Your task to perform on an android device: empty trash in google photos Image 0: 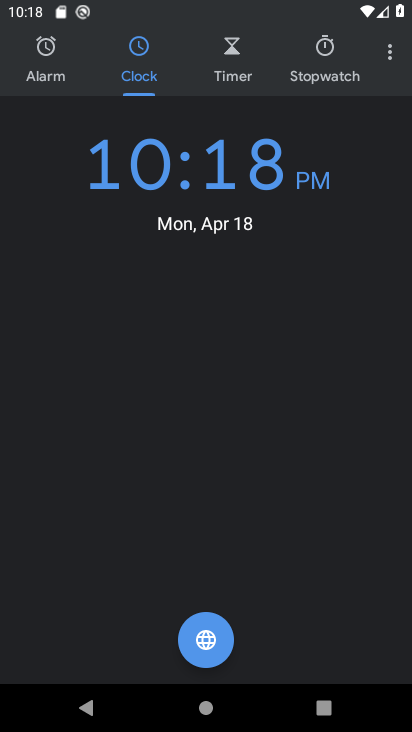
Step 0: press home button
Your task to perform on an android device: empty trash in google photos Image 1: 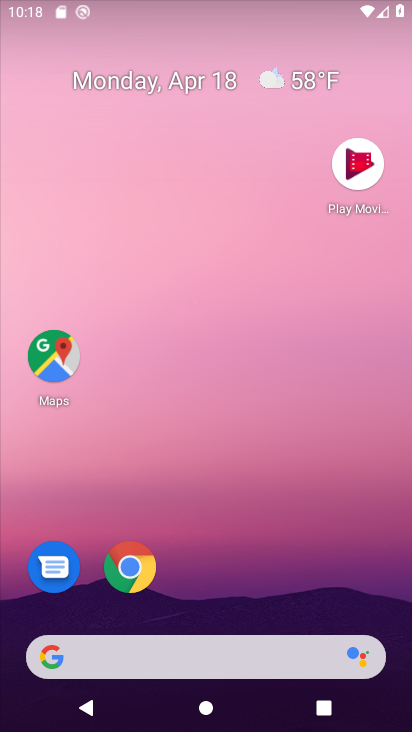
Step 1: drag from (198, 603) to (222, 374)
Your task to perform on an android device: empty trash in google photos Image 2: 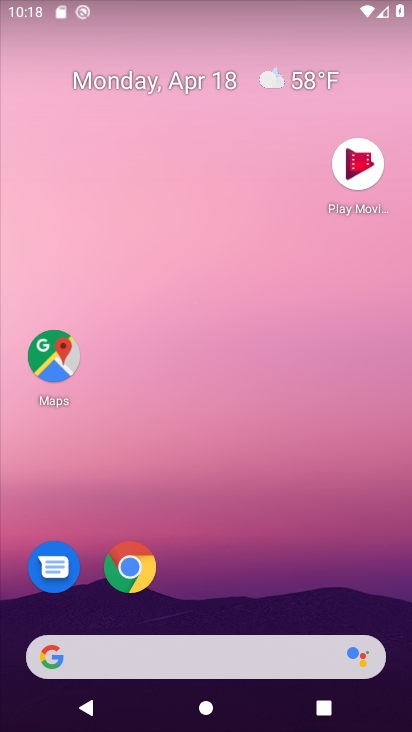
Step 2: drag from (195, 584) to (118, 0)
Your task to perform on an android device: empty trash in google photos Image 3: 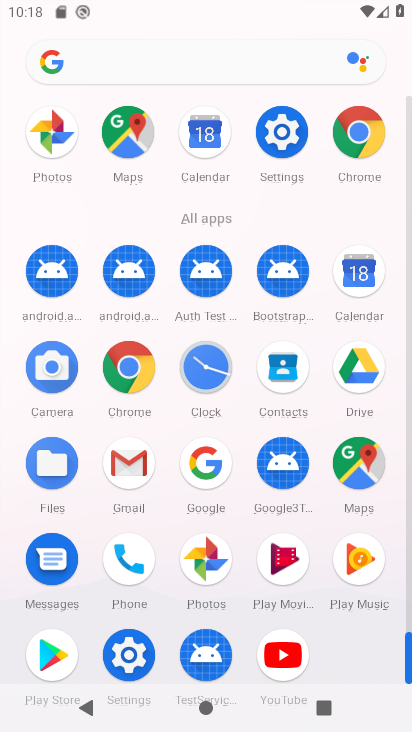
Step 3: click (187, 566)
Your task to perform on an android device: empty trash in google photos Image 4: 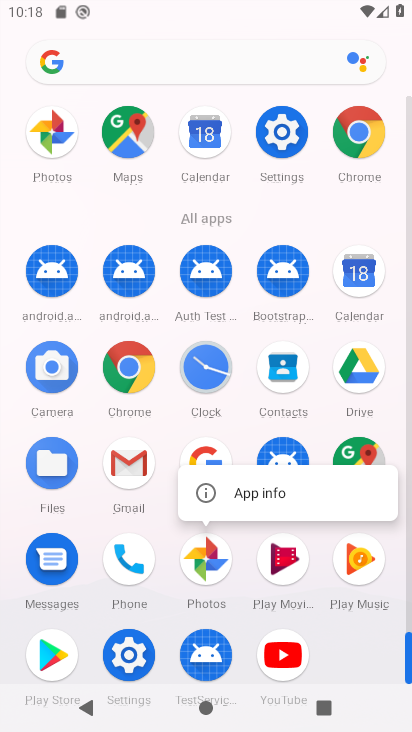
Step 4: click (250, 490)
Your task to perform on an android device: empty trash in google photos Image 5: 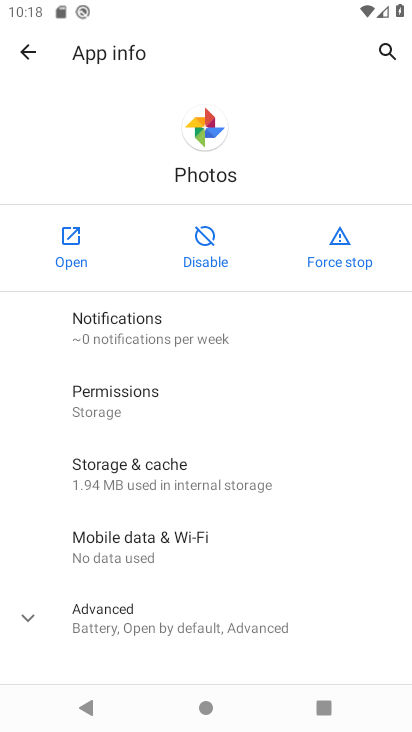
Step 5: click (77, 244)
Your task to perform on an android device: empty trash in google photos Image 6: 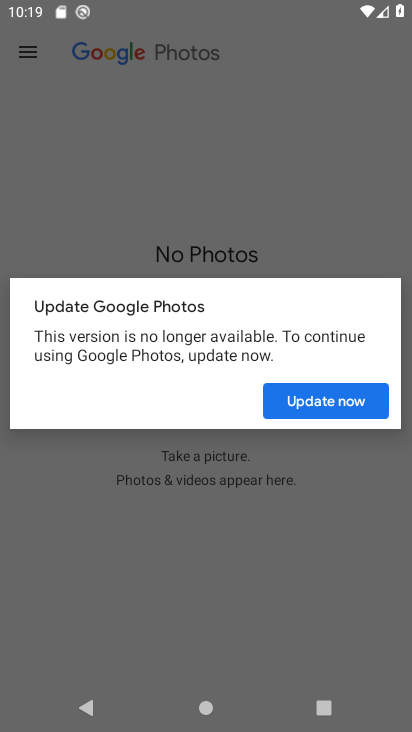
Step 6: click (313, 138)
Your task to perform on an android device: empty trash in google photos Image 7: 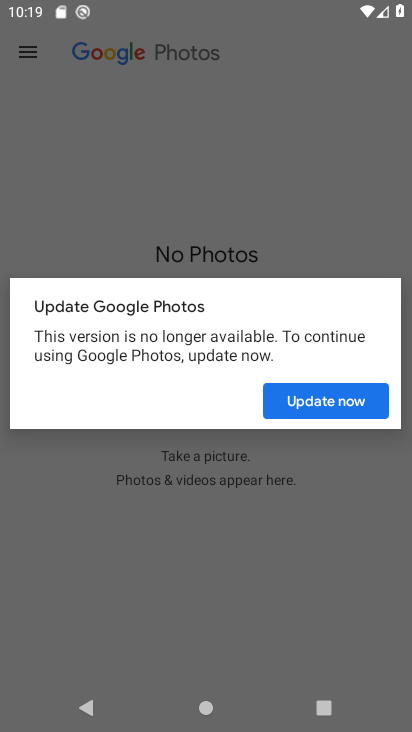
Step 7: click (293, 396)
Your task to perform on an android device: empty trash in google photos Image 8: 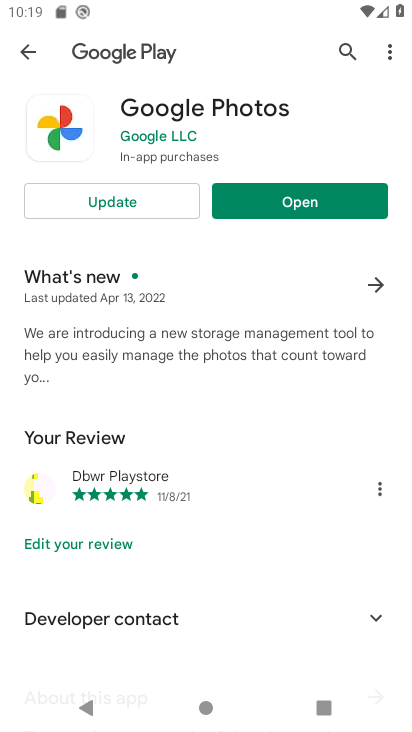
Step 8: click (190, 197)
Your task to perform on an android device: empty trash in google photos Image 9: 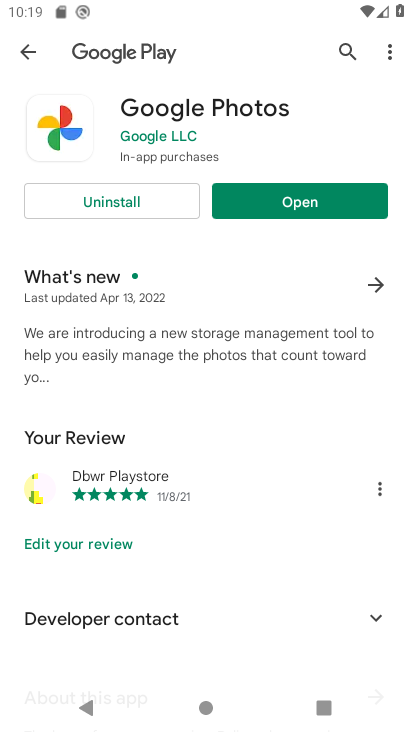
Step 9: click (281, 205)
Your task to perform on an android device: empty trash in google photos Image 10: 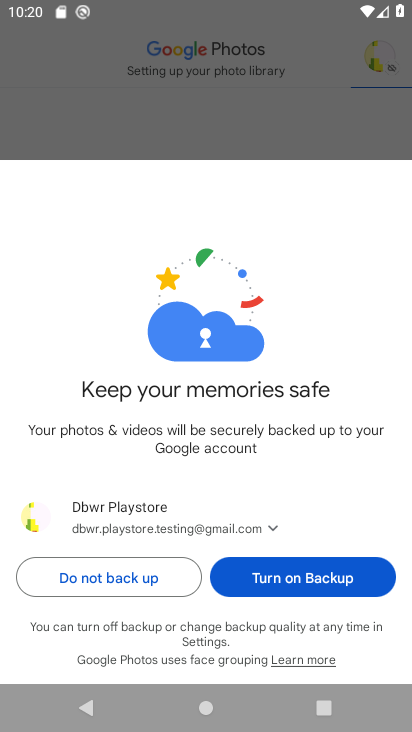
Step 10: click (324, 576)
Your task to perform on an android device: empty trash in google photos Image 11: 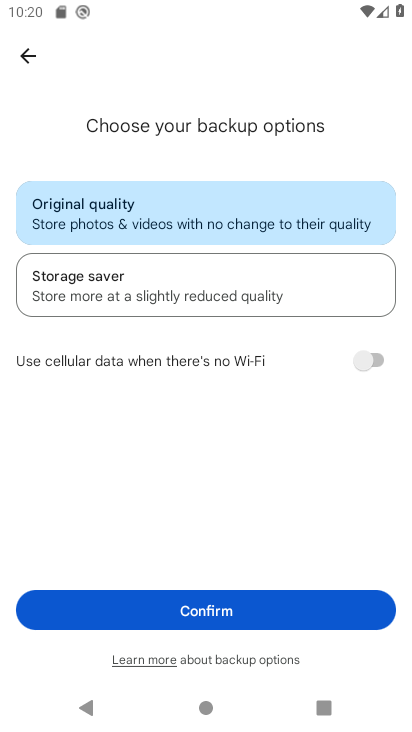
Step 11: click (212, 610)
Your task to perform on an android device: empty trash in google photos Image 12: 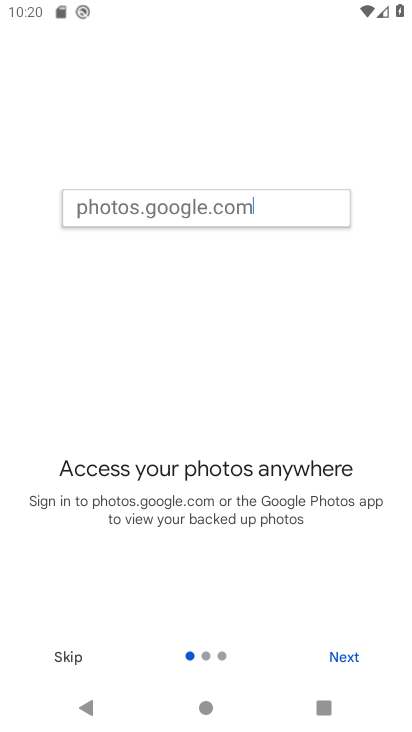
Step 12: click (57, 645)
Your task to perform on an android device: empty trash in google photos Image 13: 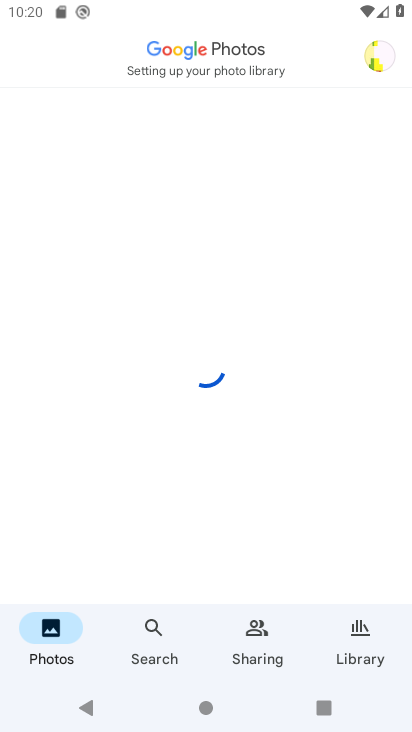
Step 13: click (348, 663)
Your task to perform on an android device: empty trash in google photos Image 14: 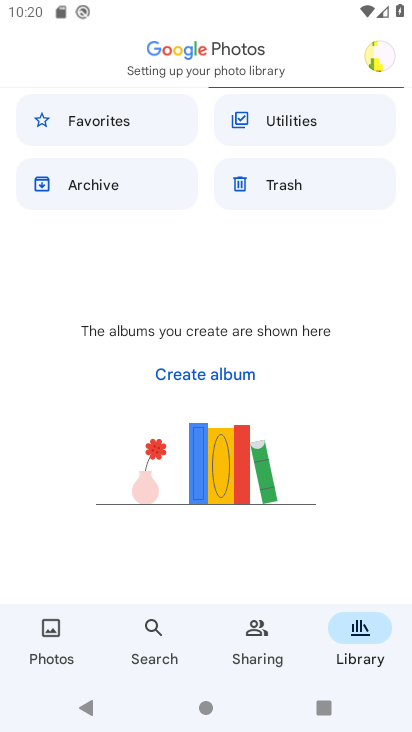
Step 14: click (294, 166)
Your task to perform on an android device: empty trash in google photos Image 15: 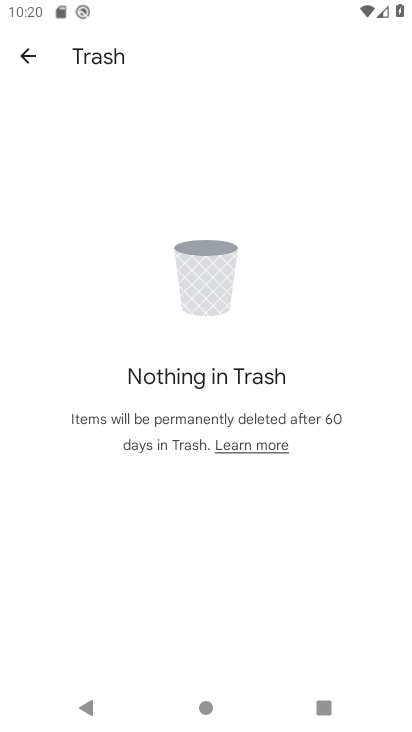
Step 15: task complete